Your task to perform on an android device: see sites visited before in the chrome app Image 0: 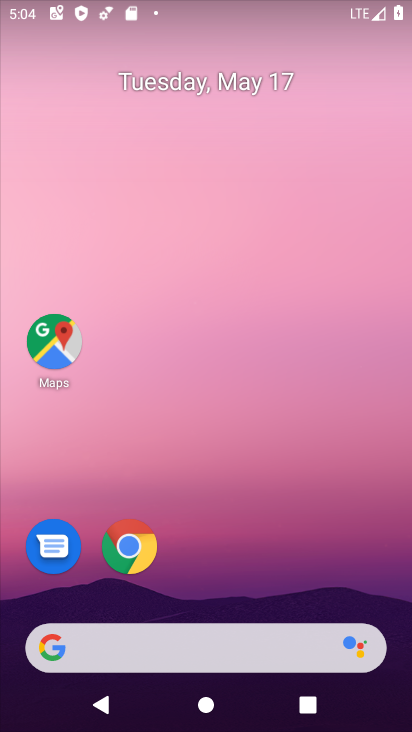
Step 0: drag from (264, 583) to (255, 60)
Your task to perform on an android device: see sites visited before in the chrome app Image 1: 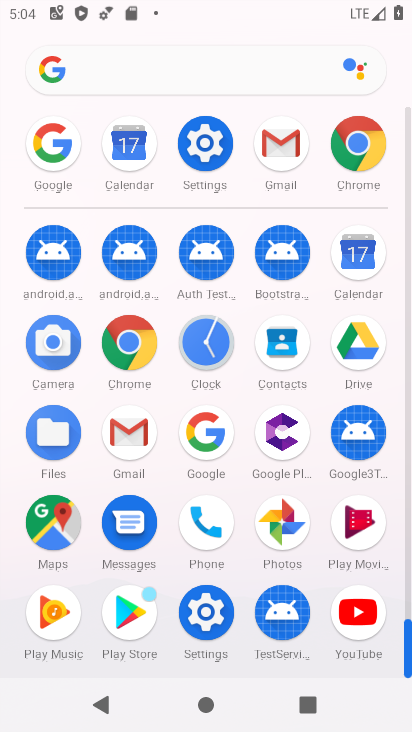
Step 1: click (353, 164)
Your task to perform on an android device: see sites visited before in the chrome app Image 2: 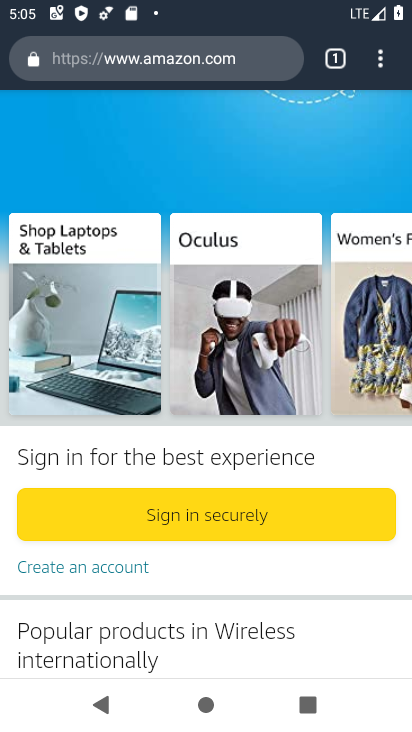
Step 2: click (380, 67)
Your task to perform on an android device: see sites visited before in the chrome app Image 3: 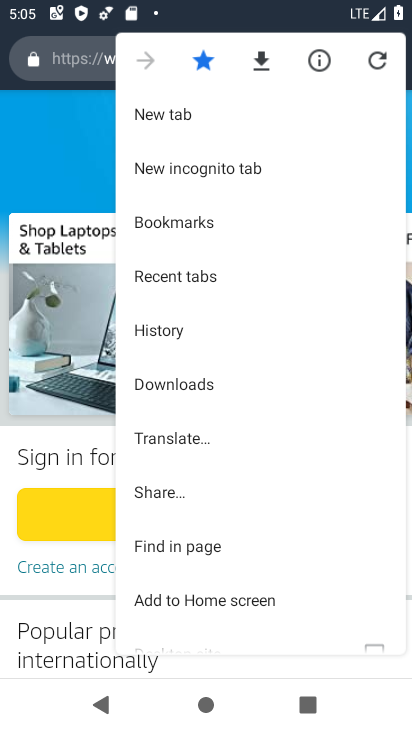
Step 3: click (155, 327)
Your task to perform on an android device: see sites visited before in the chrome app Image 4: 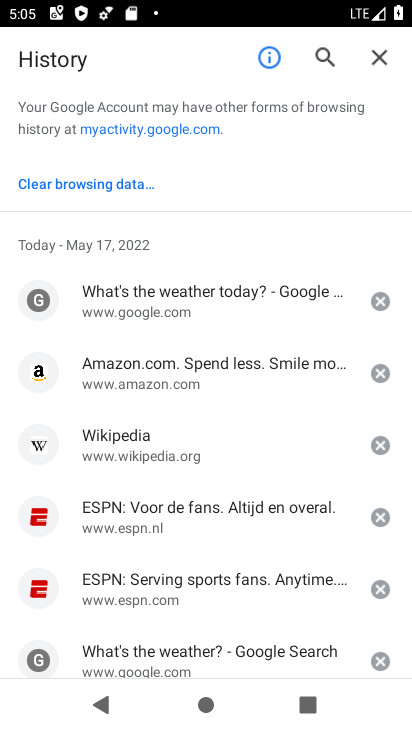
Step 4: task complete